Your task to perform on an android device: allow cookies in the chrome app Image 0: 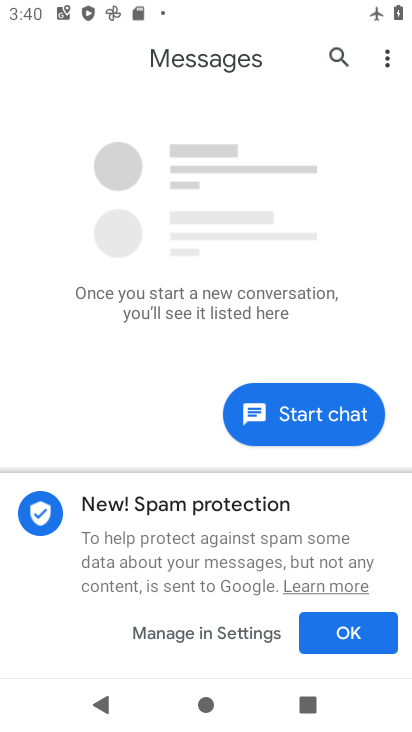
Step 0: press home button
Your task to perform on an android device: allow cookies in the chrome app Image 1: 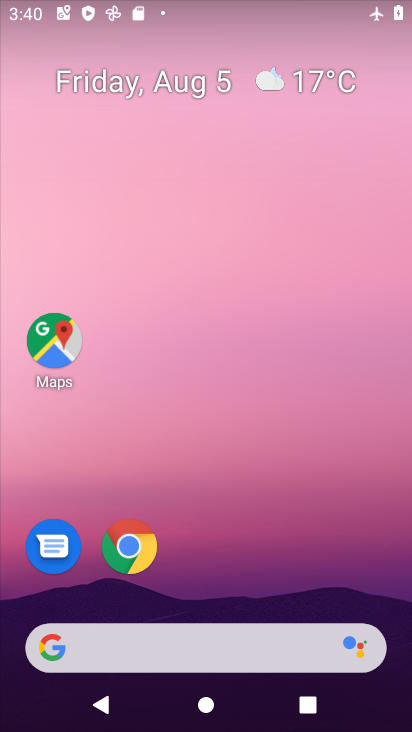
Step 1: drag from (310, 546) to (325, 148)
Your task to perform on an android device: allow cookies in the chrome app Image 2: 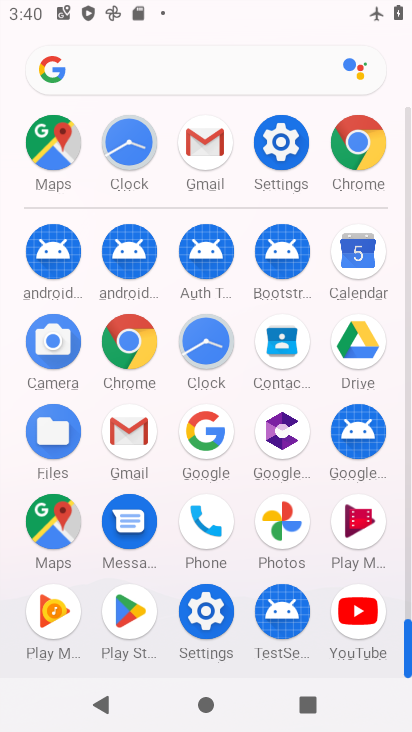
Step 2: click (125, 348)
Your task to perform on an android device: allow cookies in the chrome app Image 3: 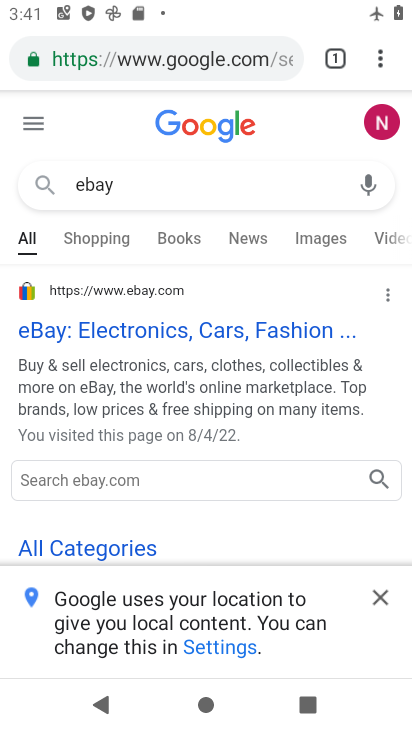
Step 3: click (381, 67)
Your task to perform on an android device: allow cookies in the chrome app Image 4: 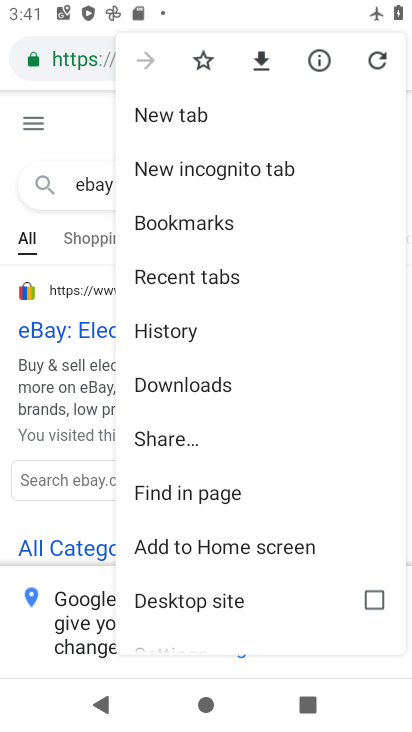
Step 4: drag from (352, 422) to (336, 283)
Your task to perform on an android device: allow cookies in the chrome app Image 5: 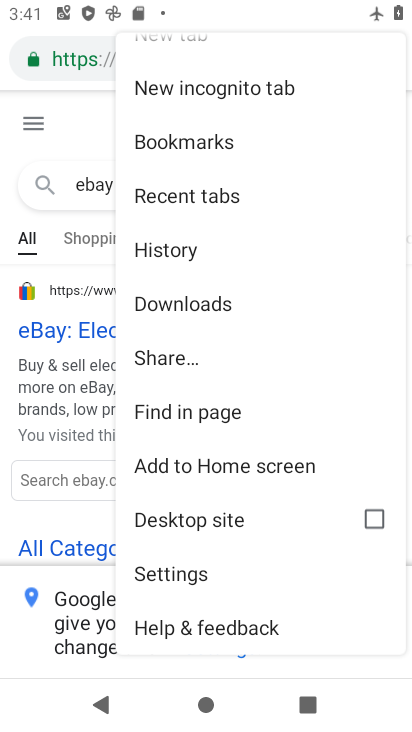
Step 5: click (198, 575)
Your task to perform on an android device: allow cookies in the chrome app Image 6: 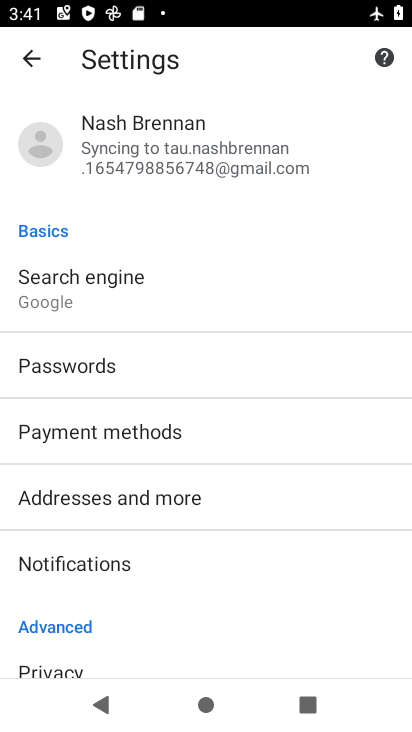
Step 6: drag from (280, 597) to (290, 495)
Your task to perform on an android device: allow cookies in the chrome app Image 7: 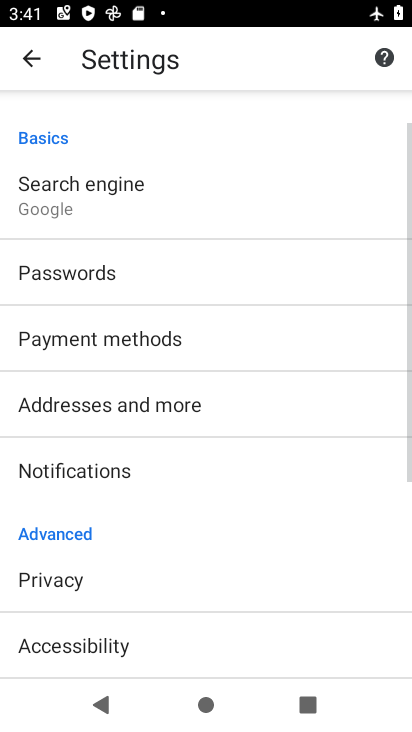
Step 7: drag from (274, 591) to (281, 469)
Your task to perform on an android device: allow cookies in the chrome app Image 8: 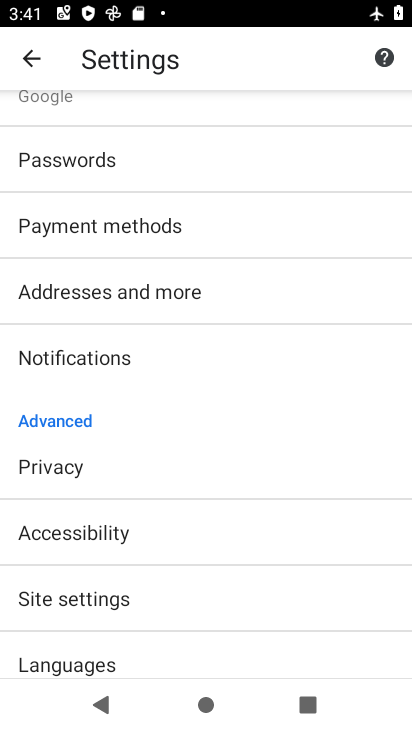
Step 8: drag from (251, 576) to (253, 455)
Your task to perform on an android device: allow cookies in the chrome app Image 9: 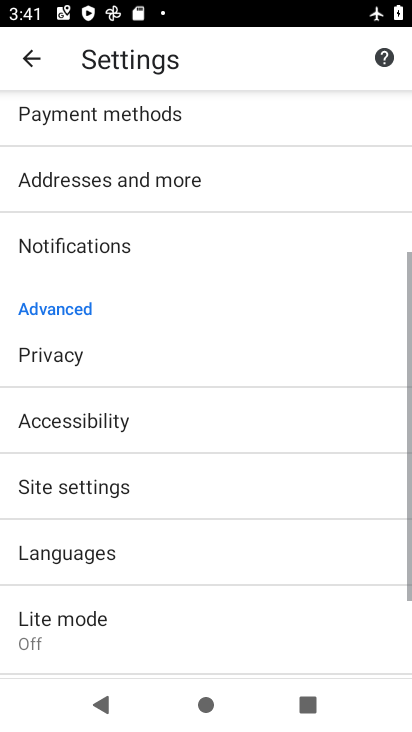
Step 9: click (251, 486)
Your task to perform on an android device: allow cookies in the chrome app Image 10: 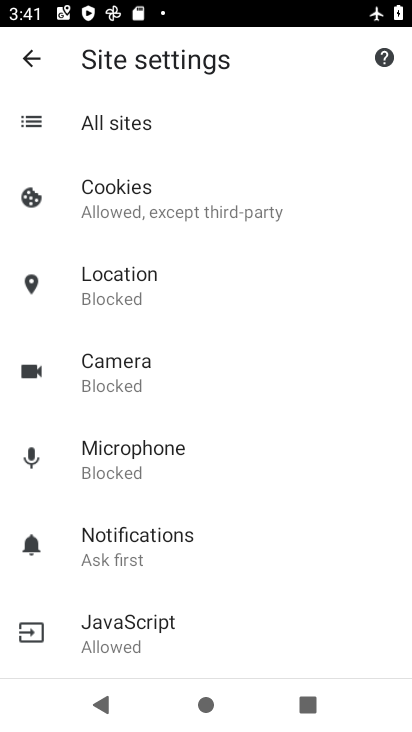
Step 10: click (206, 203)
Your task to perform on an android device: allow cookies in the chrome app Image 11: 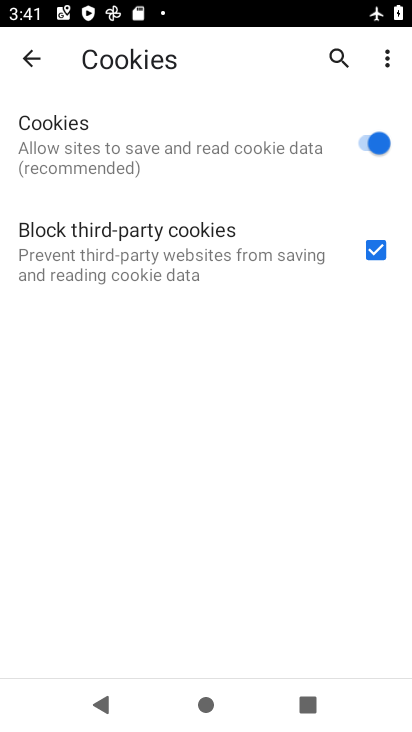
Step 11: task complete